Your task to perform on an android device: Open maps Image 0: 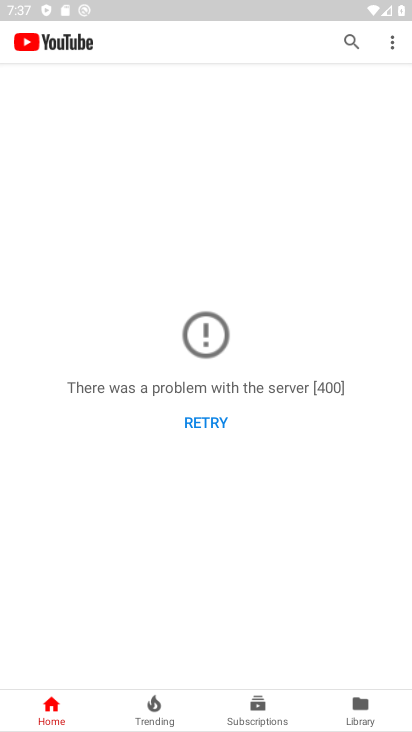
Step 0: press home button
Your task to perform on an android device: Open maps Image 1: 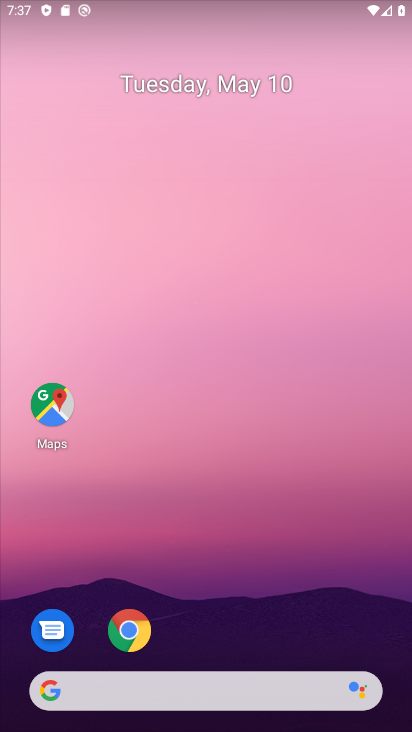
Step 1: click (49, 411)
Your task to perform on an android device: Open maps Image 2: 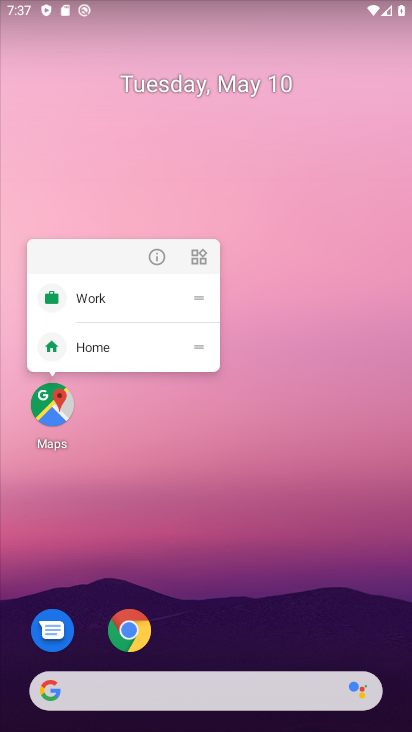
Step 2: click (47, 416)
Your task to perform on an android device: Open maps Image 3: 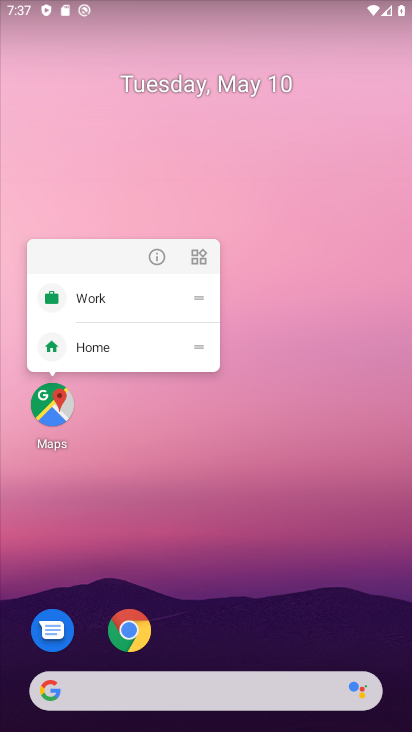
Step 3: click (47, 416)
Your task to perform on an android device: Open maps Image 4: 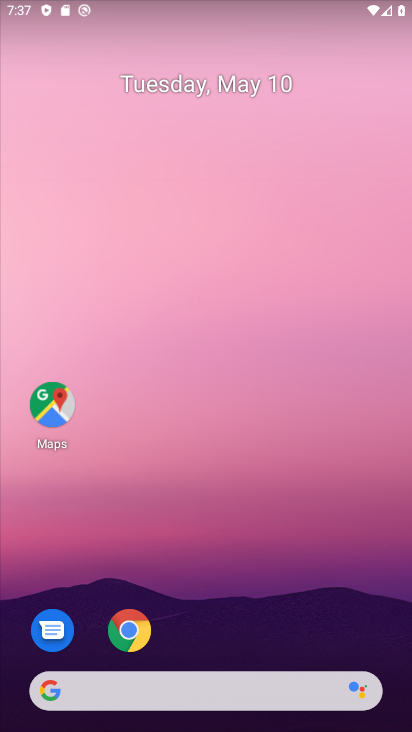
Step 4: click (47, 416)
Your task to perform on an android device: Open maps Image 5: 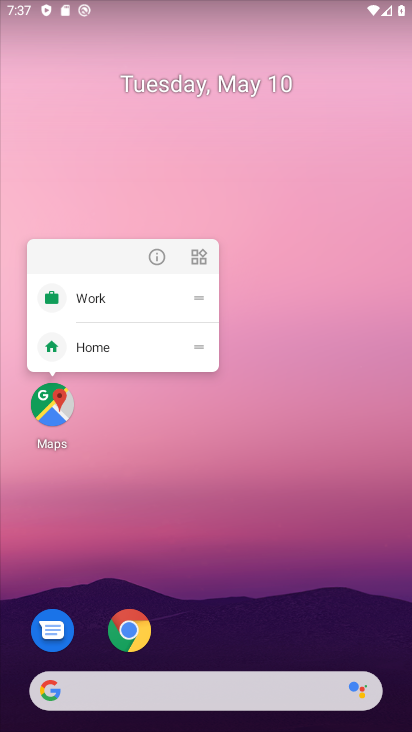
Step 5: click (47, 416)
Your task to perform on an android device: Open maps Image 6: 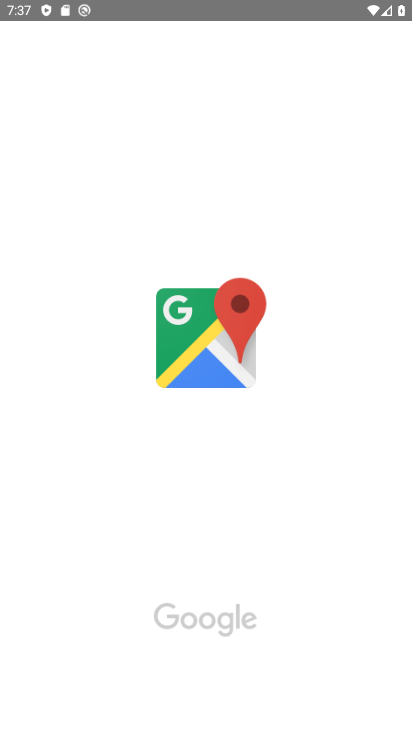
Step 6: click (47, 416)
Your task to perform on an android device: Open maps Image 7: 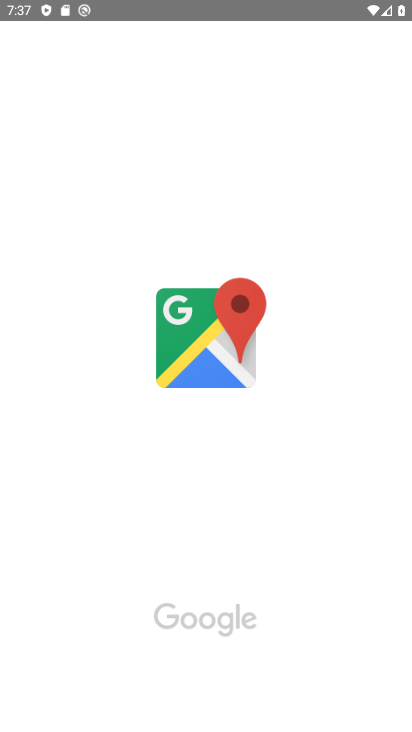
Step 7: click (47, 416)
Your task to perform on an android device: Open maps Image 8: 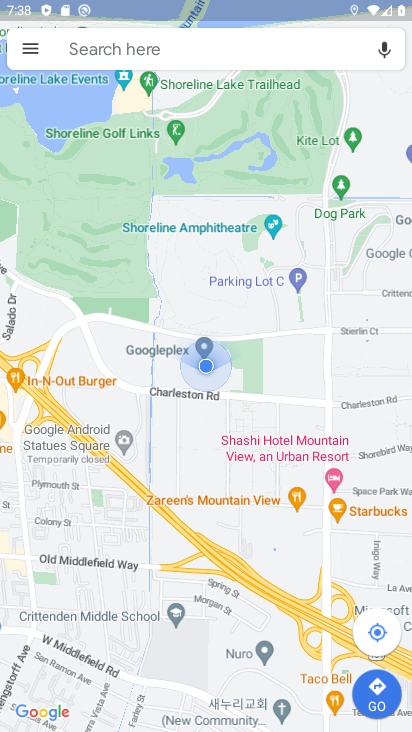
Step 8: task complete